Your task to perform on an android device: check storage Image 0: 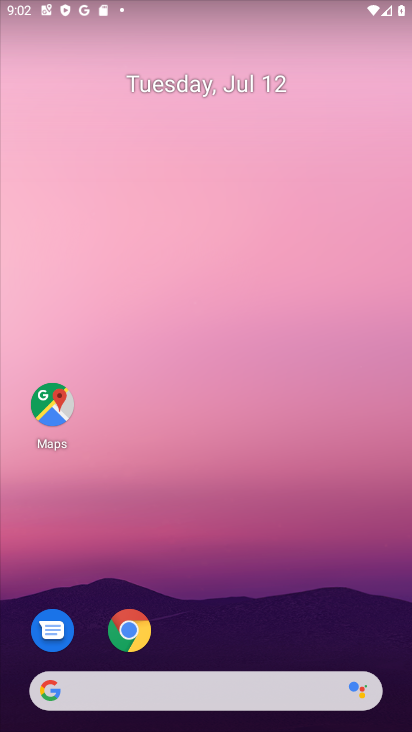
Step 0: drag from (205, 638) to (231, 104)
Your task to perform on an android device: check storage Image 1: 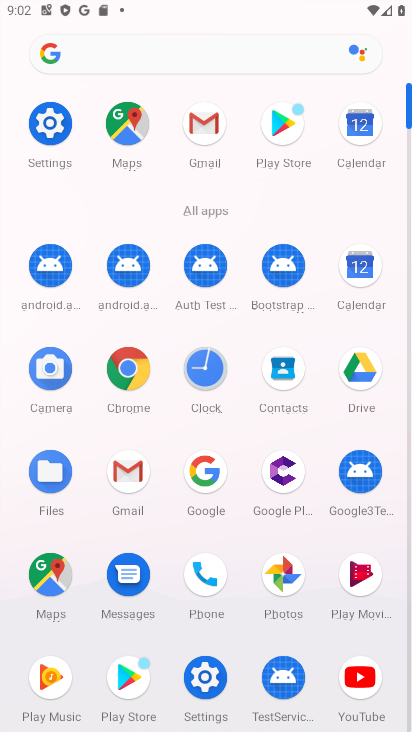
Step 1: click (49, 125)
Your task to perform on an android device: check storage Image 2: 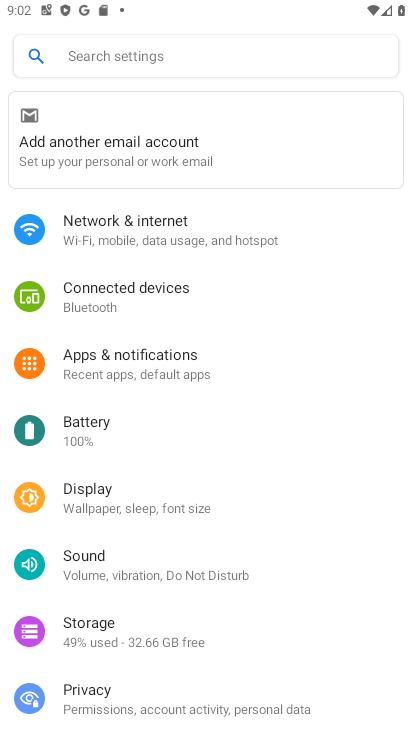
Step 2: click (120, 631)
Your task to perform on an android device: check storage Image 3: 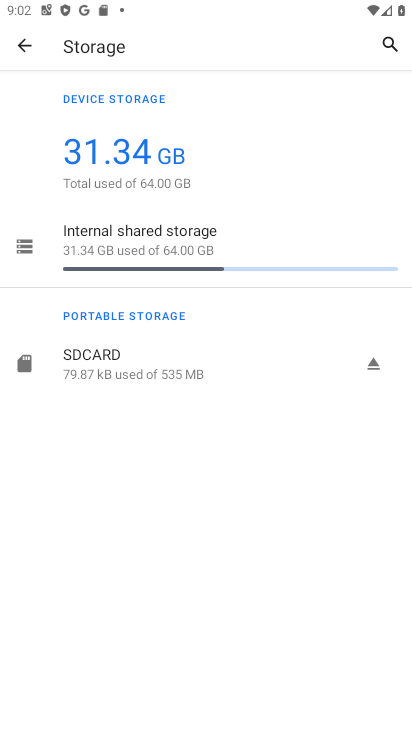
Step 3: task complete